Your task to perform on an android device: Open location settings Image 0: 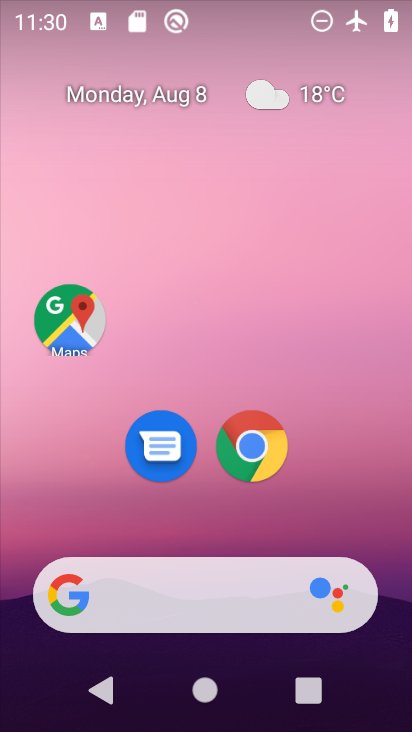
Step 0: drag from (401, 623) to (376, 108)
Your task to perform on an android device: Open location settings Image 1: 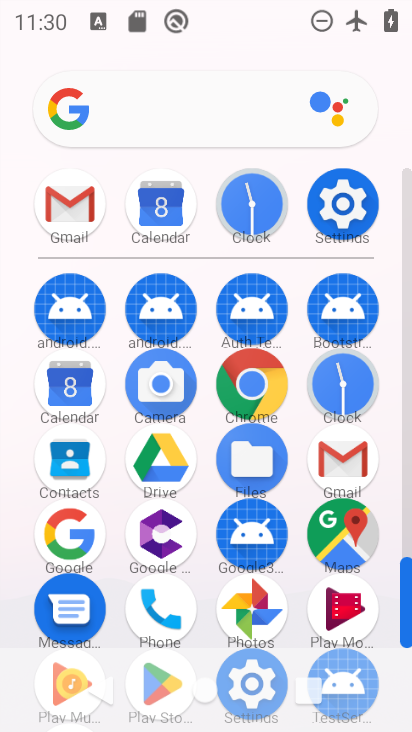
Step 1: drag from (406, 538) to (404, 503)
Your task to perform on an android device: Open location settings Image 2: 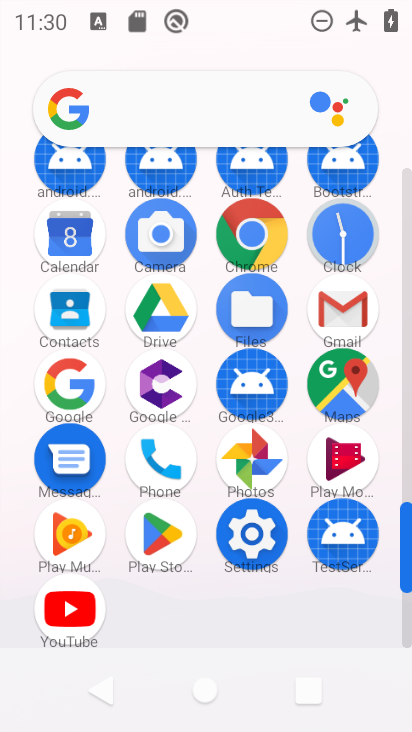
Step 2: click (250, 534)
Your task to perform on an android device: Open location settings Image 3: 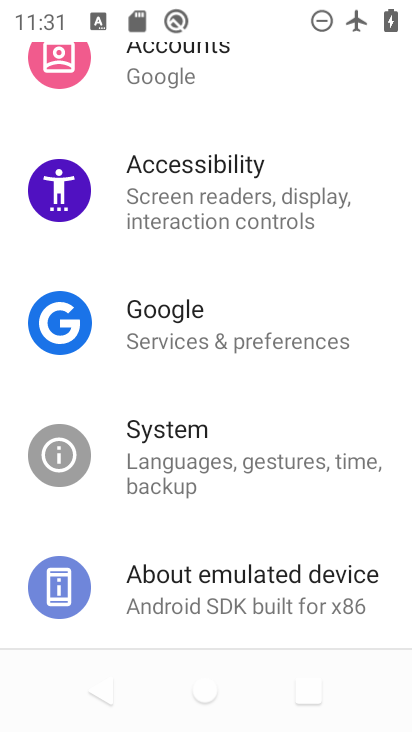
Step 3: drag from (363, 131) to (382, 330)
Your task to perform on an android device: Open location settings Image 4: 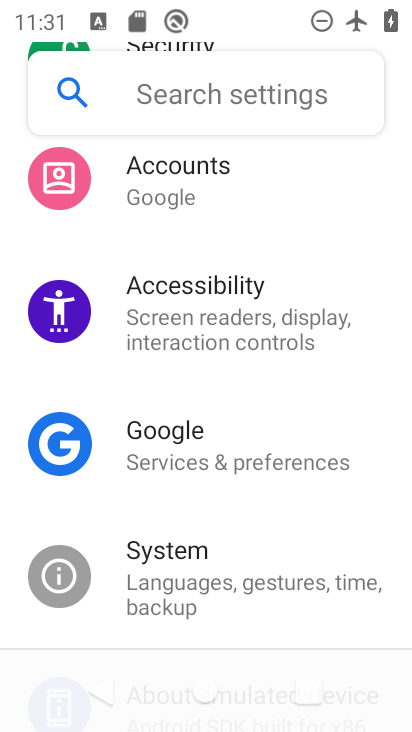
Step 4: drag from (356, 194) to (351, 458)
Your task to perform on an android device: Open location settings Image 5: 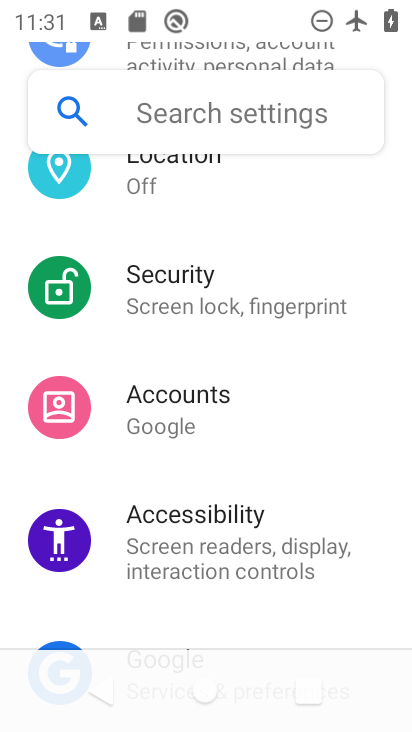
Step 5: drag from (360, 206) to (366, 481)
Your task to perform on an android device: Open location settings Image 6: 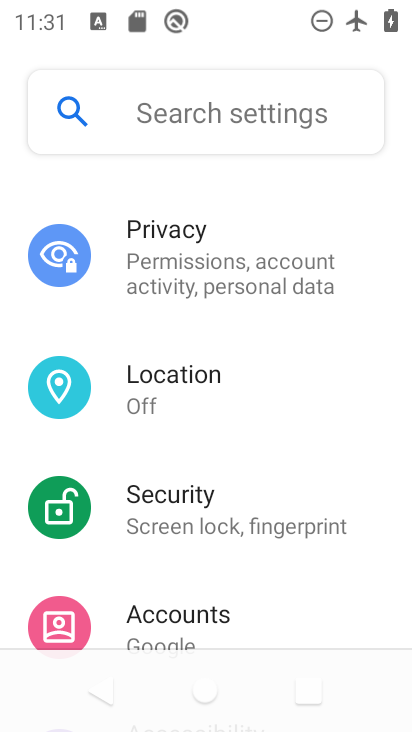
Step 6: click (136, 391)
Your task to perform on an android device: Open location settings Image 7: 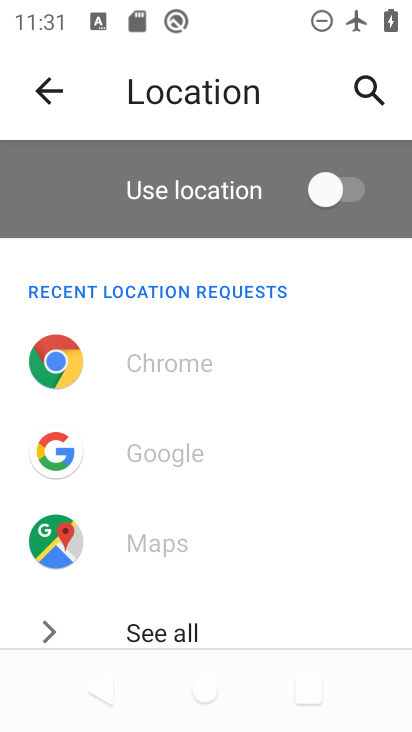
Step 7: task complete